Your task to perform on an android device: Open Chrome and go to the settings page Image 0: 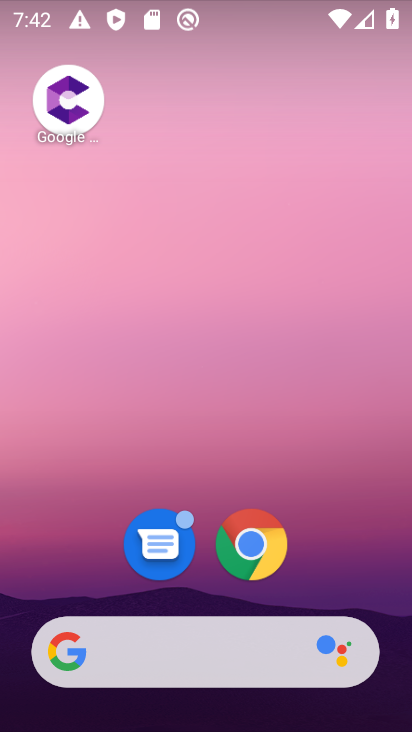
Step 0: click (247, 544)
Your task to perform on an android device: Open Chrome and go to the settings page Image 1: 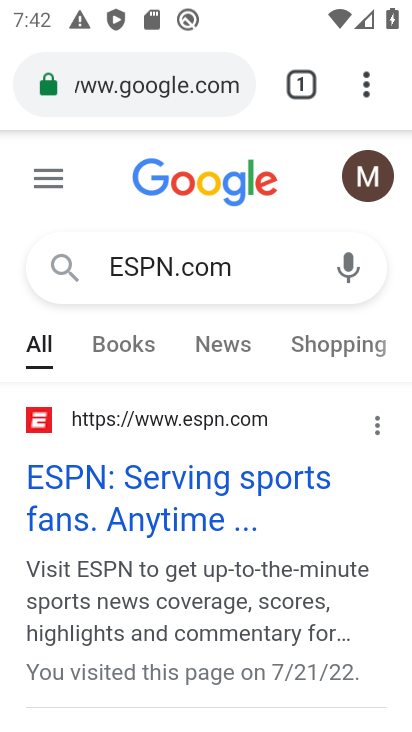
Step 1: click (366, 93)
Your task to perform on an android device: Open Chrome and go to the settings page Image 2: 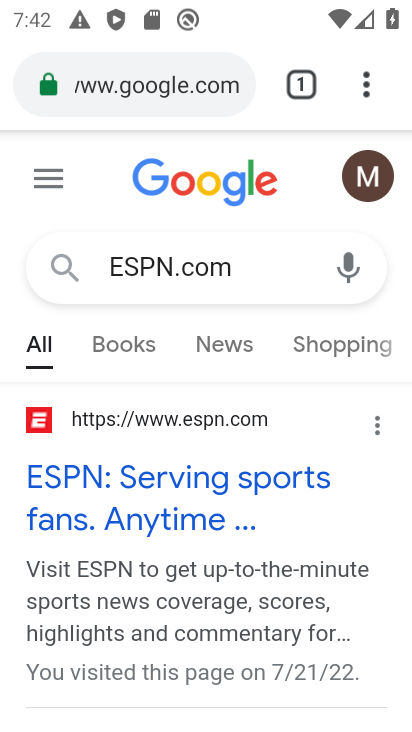
Step 2: click (368, 84)
Your task to perform on an android device: Open Chrome and go to the settings page Image 3: 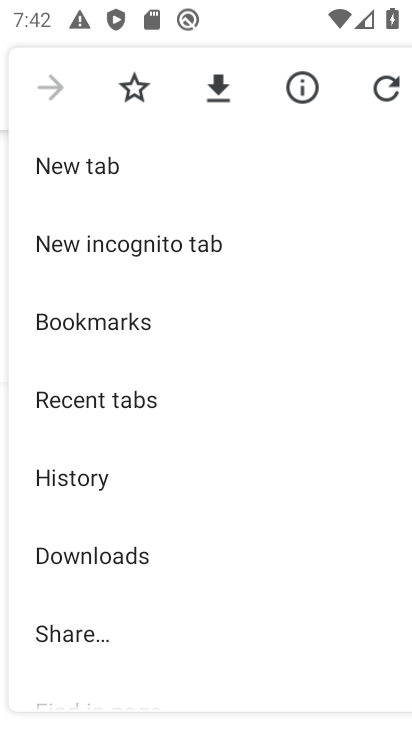
Step 3: drag from (218, 571) to (260, 81)
Your task to perform on an android device: Open Chrome and go to the settings page Image 4: 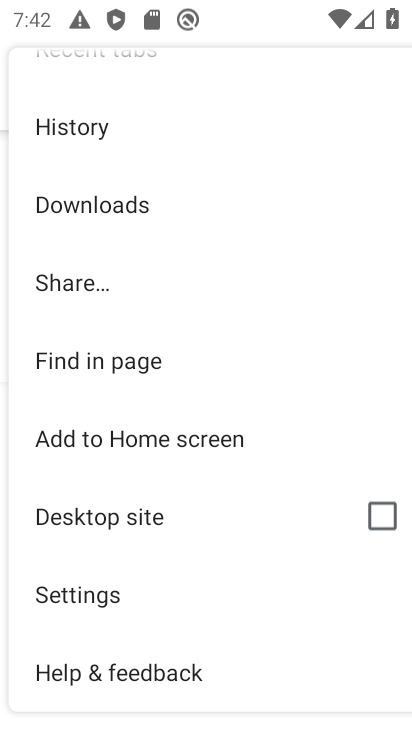
Step 4: click (99, 598)
Your task to perform on an android device: Open Chrome and go to the settings page Image 5: 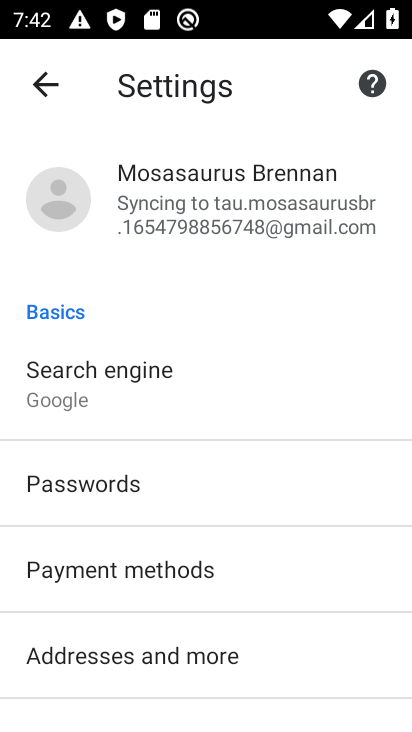
Step 5: task complete